Your task to perform on an android device: Do I have any events tomorrow? Image 0: 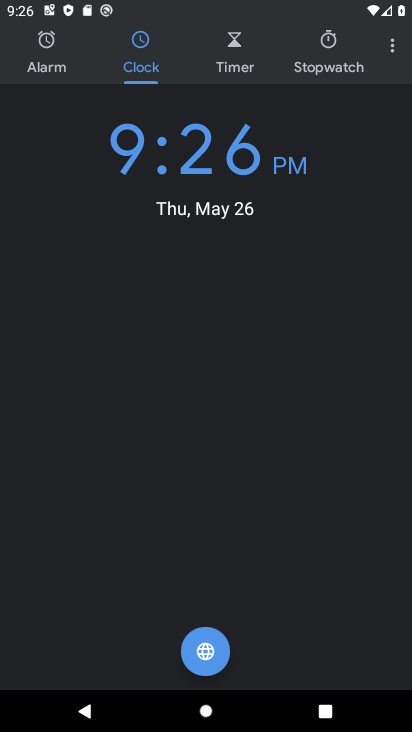
Step 0: press home button
Your task to perform on an android device: Do I have any events tomorrow? Image 1: 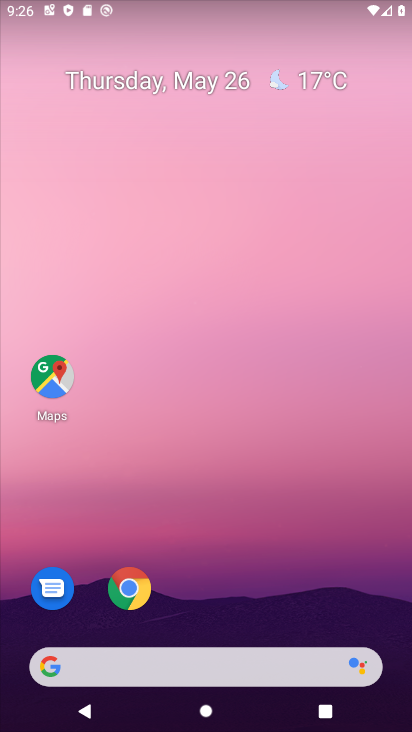
Step 1: drag from (372, 620) to (316, 135)
Your task to perform on an android device: Do I have any events tomorrow? Image 2: 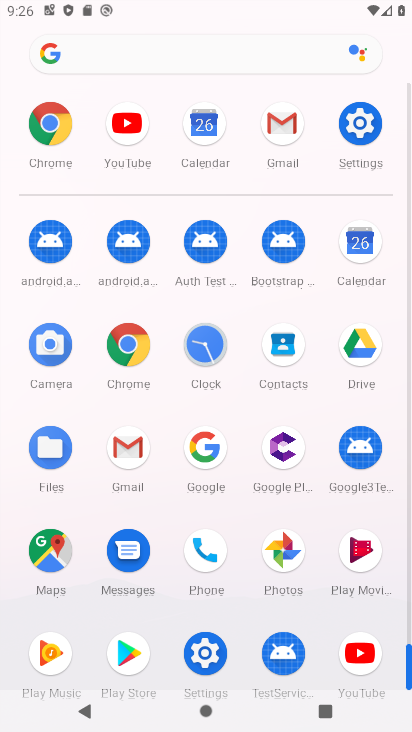
Step 2: click (358, 239)
Your task to perform on an android device: Do I have any events tomorrow? Image 3: 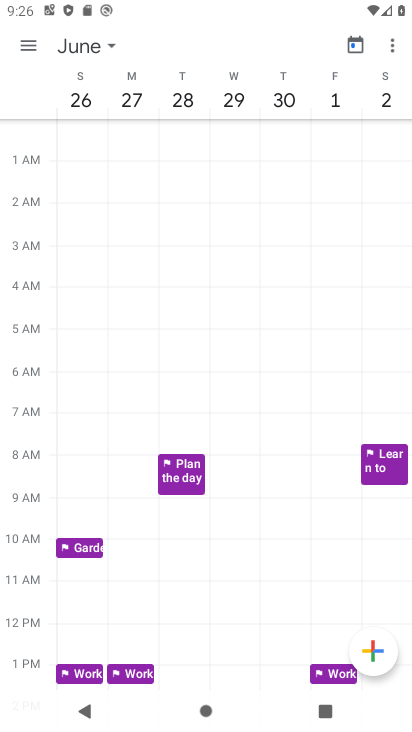
Step 3: click (25, 41)
Your task to perform on an android device: Do I have any events tomorrow? Image 4: 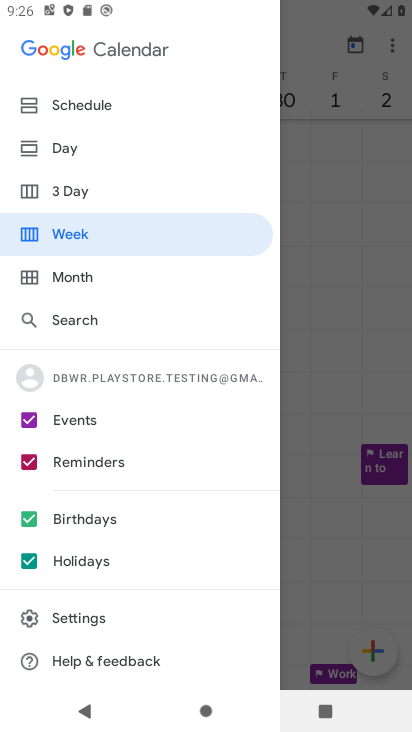
Step 4: click (54, 149)
Your task to perform on an android device: Do I have any events tomorrow? Image 5: 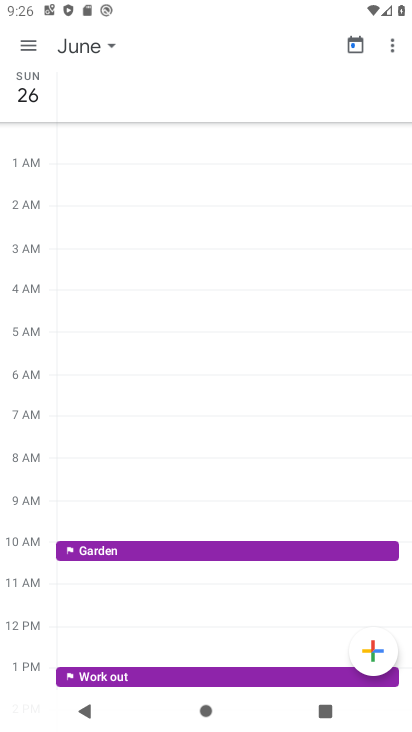
Step 5: click (112, 51)
Your task to perform on an android device: Do I have any events tomorrow? Image 6: 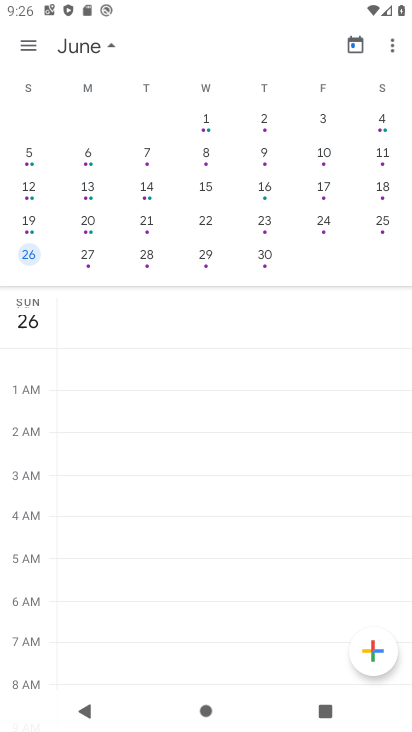
Step 6: drag from (47, 219) to (378, 186)
Your task to perform on an android device: Do I have any events tomorrow? Image 7: 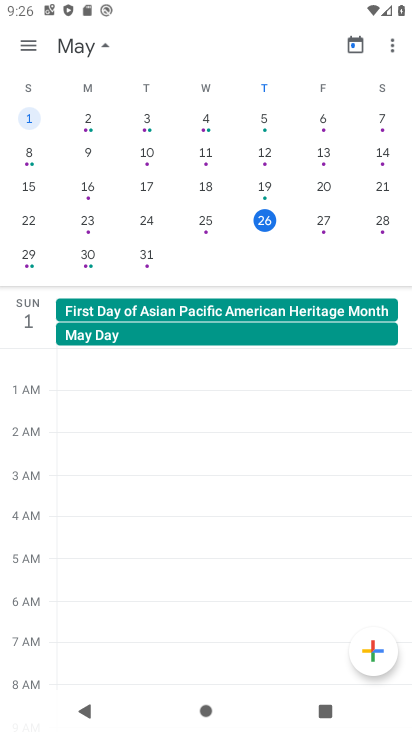
Step 7: click (313, 219)
Your task to perform on an android device: Do I have any events tomorrow? Image 8: 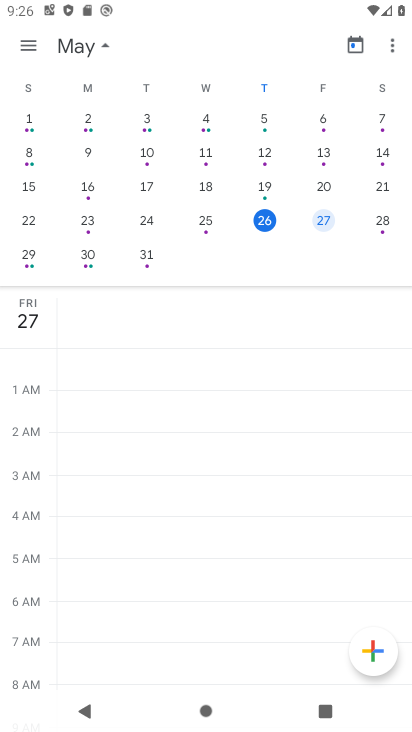
Step 8: task complete